Your task to perform on an android device: open a bookmark in the chrome app Image 0: 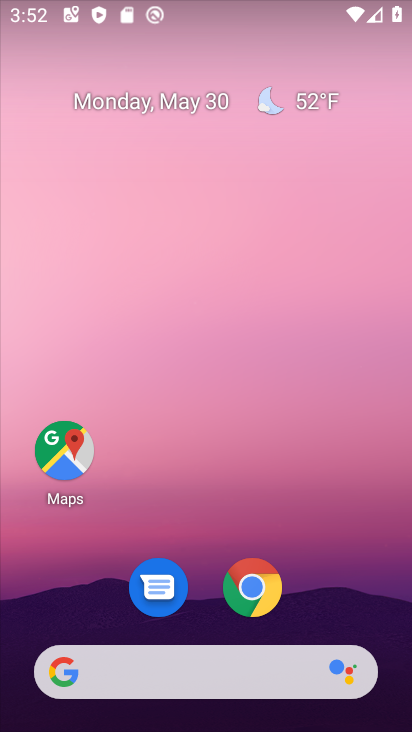
Step 0: drag from (246, 676) to (149, 178)
Your task to perform on an android device: open a bookmark in the chrome app Image 1: 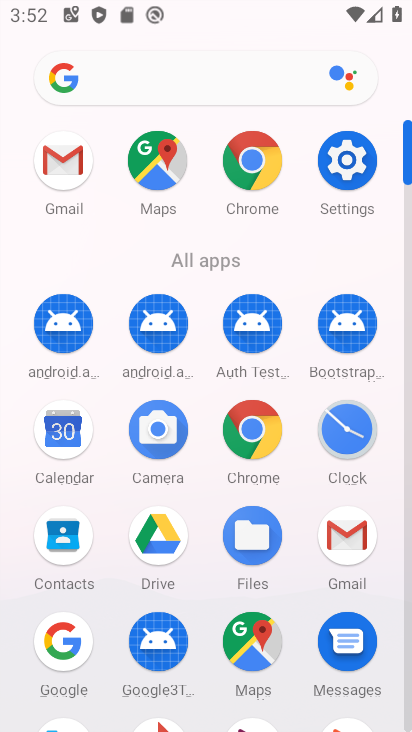
Step 1: click (240, 160)
Your task to perform on an android device: open a bookmark in the chrome app Image 2: 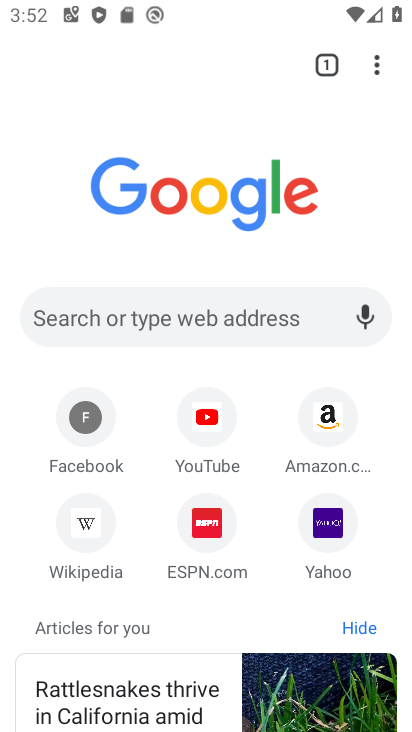
Step 2: click (372, 71)
Your task to perform on an android device: open a bookmark in the chrome app Image 3: 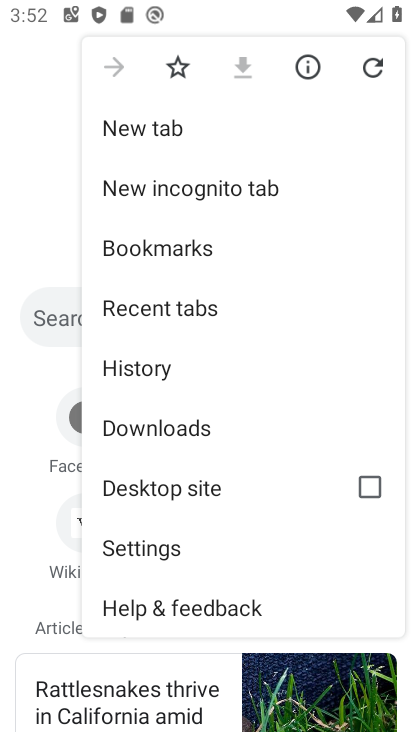
Step 3: click (152, 258)
Your task to perform on an android device: open a bookmark in the chrome app Image 4: 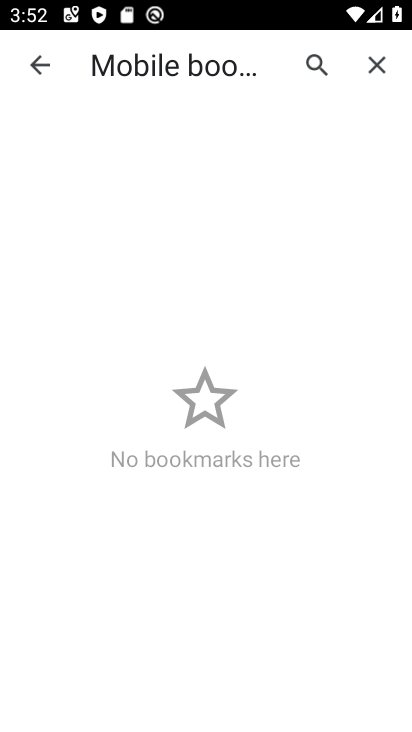
Step 4: task complete